Your task to perform on an android device: check google app version Image 0: 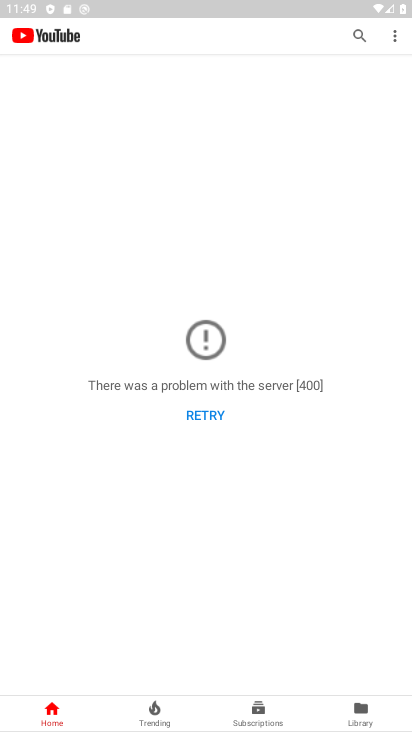
Step 0: press home button
Your task to perform on an android device: check google app version Image 1: 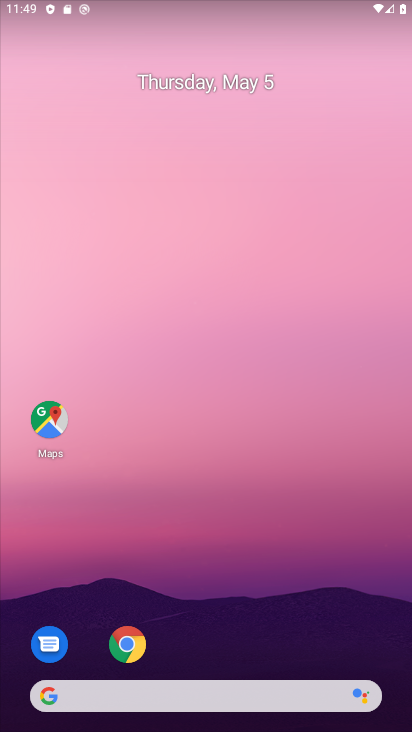
Step 1: drag from (81, 604) to (399, 64)
Your task to perform on an android device: check google app version Image 2: 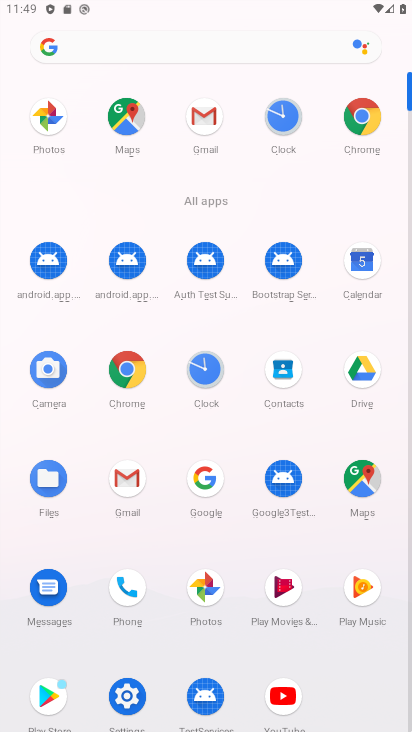
Step 2: click (284, 483)
Your task to perform on an android device: check google app version Image 3: 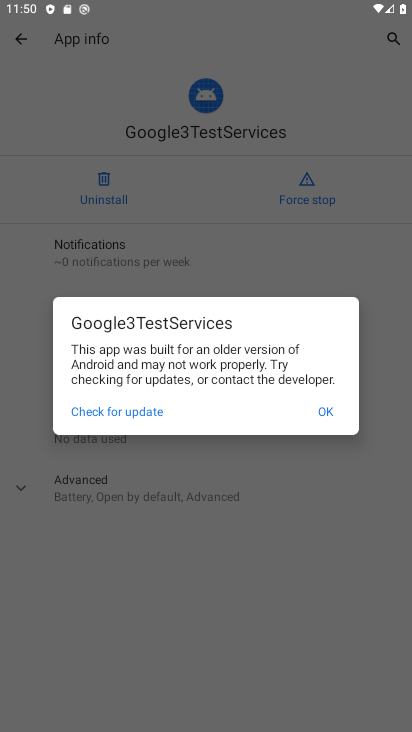
Step 3: click (313, 413)
Your task to perform on an android device: check google app version Image 4: 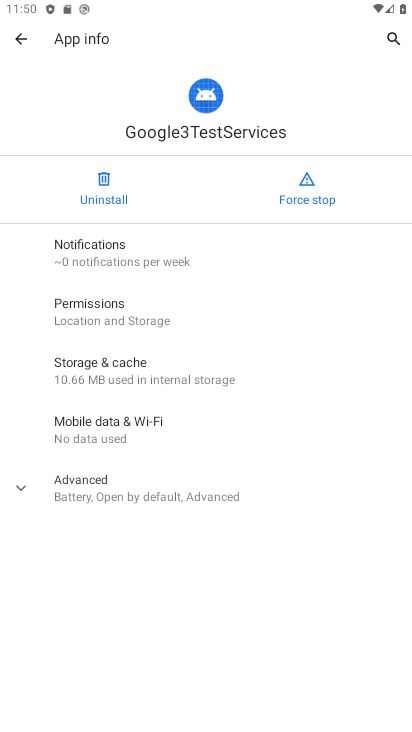
Step 4: press back button
Your task to perform on an android device: check google app version Image 5: 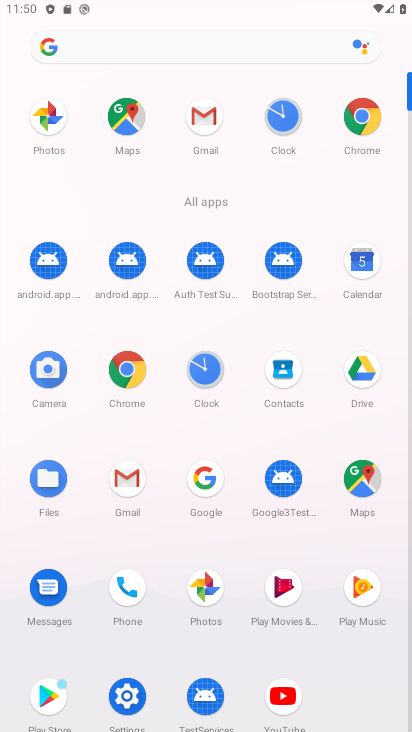
Step 5: click (44, 263)
Your task to perform on an android device: check google app version Image 6: 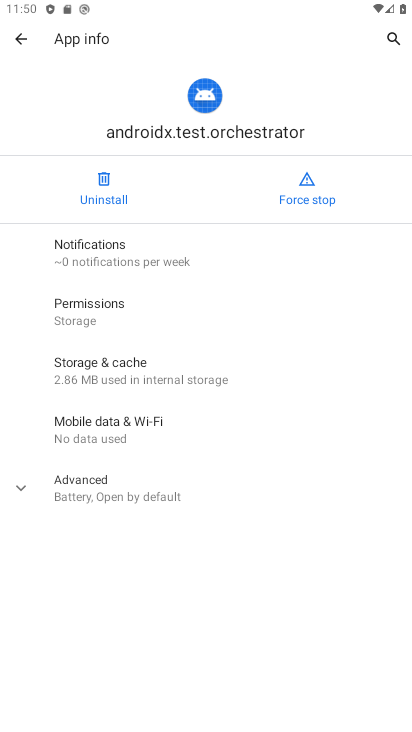
Step 6: press back button
Your task to perform on an android device: check google app version Image 7: 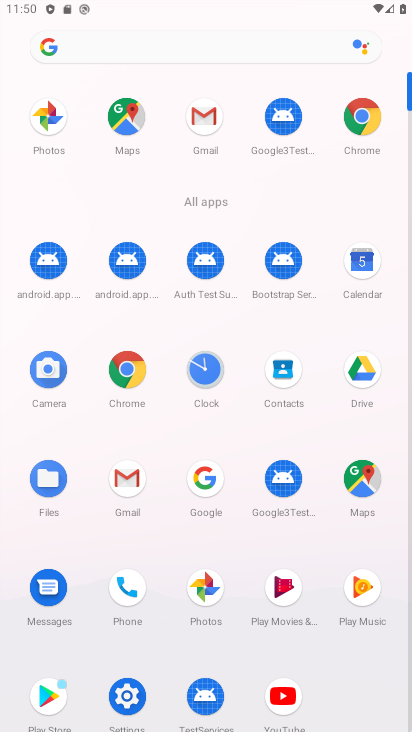
Step 7: click (128, 253)
Your task to perform on an android device: check google app version Image 8: 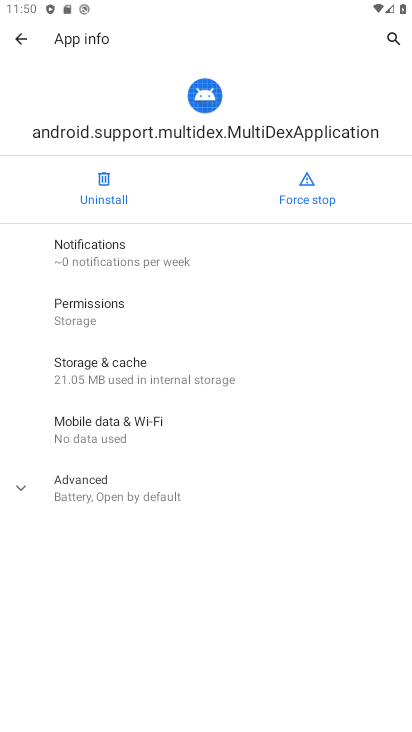
Step 8: click (157, 495)
Your task to perform on an android device: check google app version Image 9: 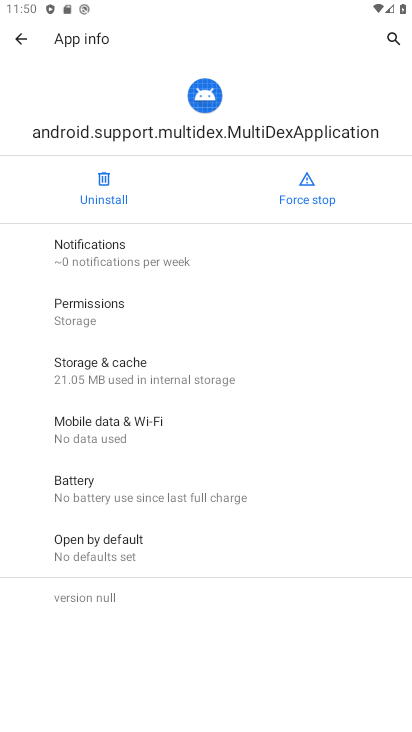
Step 9: click (113, 600)
Your task to perform on an android device: check google app version Image 10: 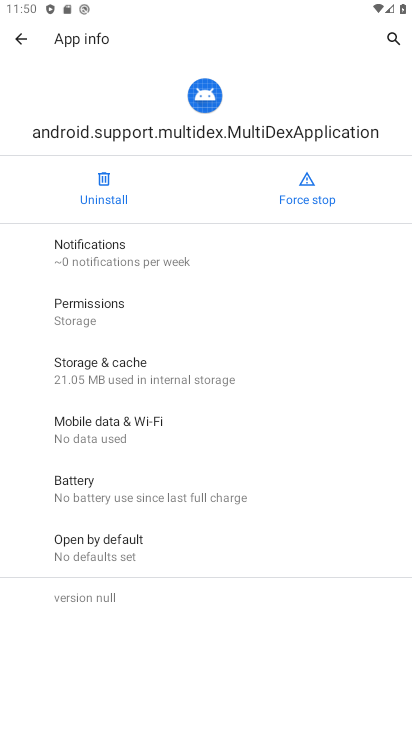
Step 10: task complete